Your task to perform on an android device: Search for the best rated TV on Target Image 0: 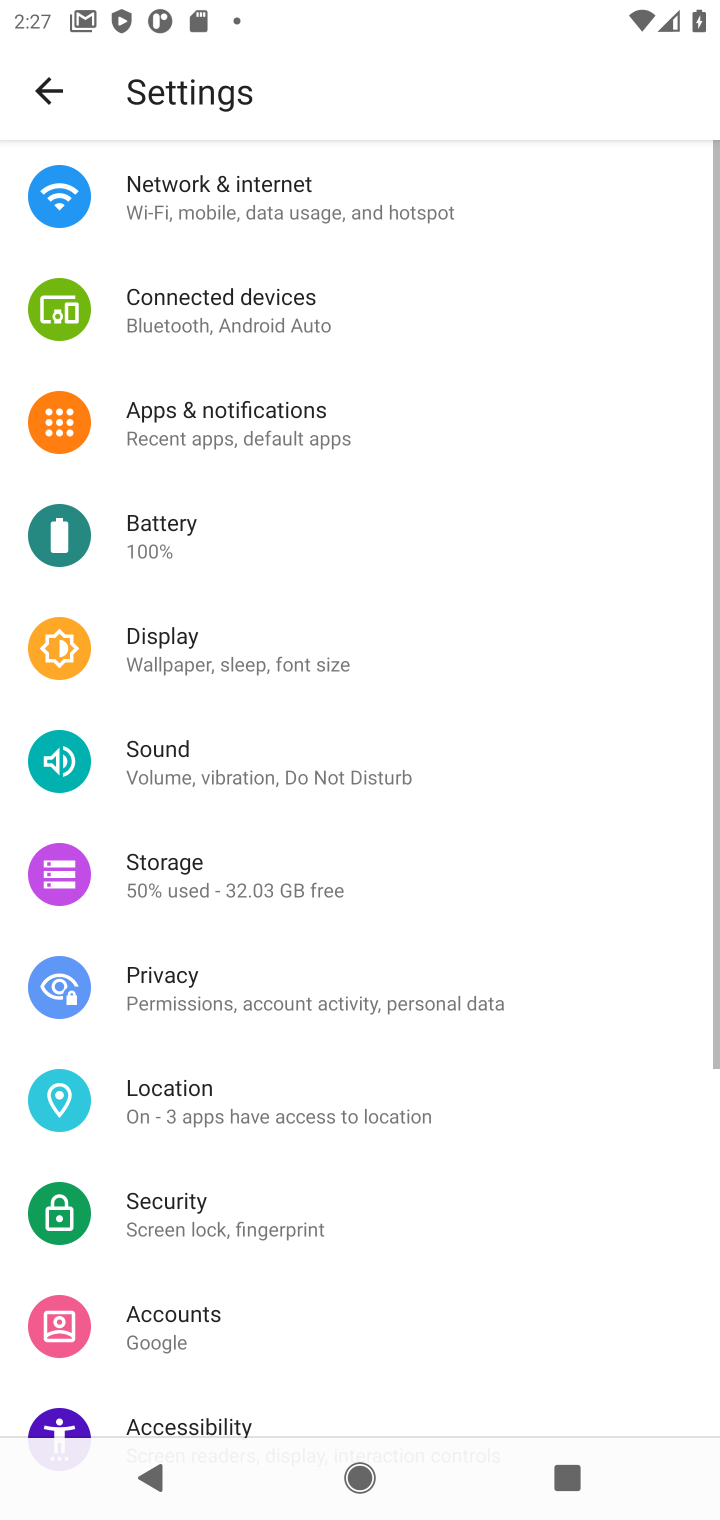
Step 0: click (709, 647)
Your task to perform on an android device: Search for the best rated TV on Target Image 1: 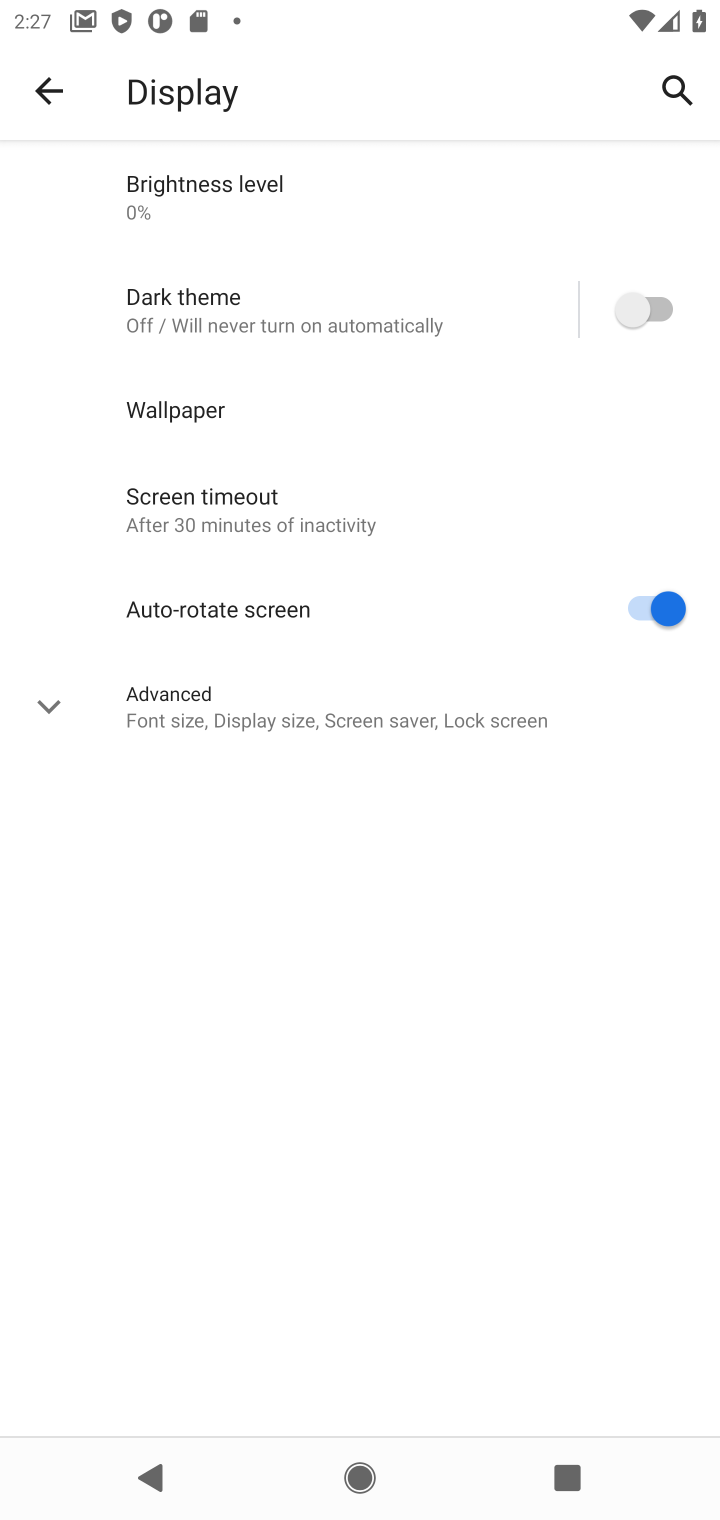
Step 1: press home button
Your task to perform on an android device: Search for the best rated TV on Target Image 2: 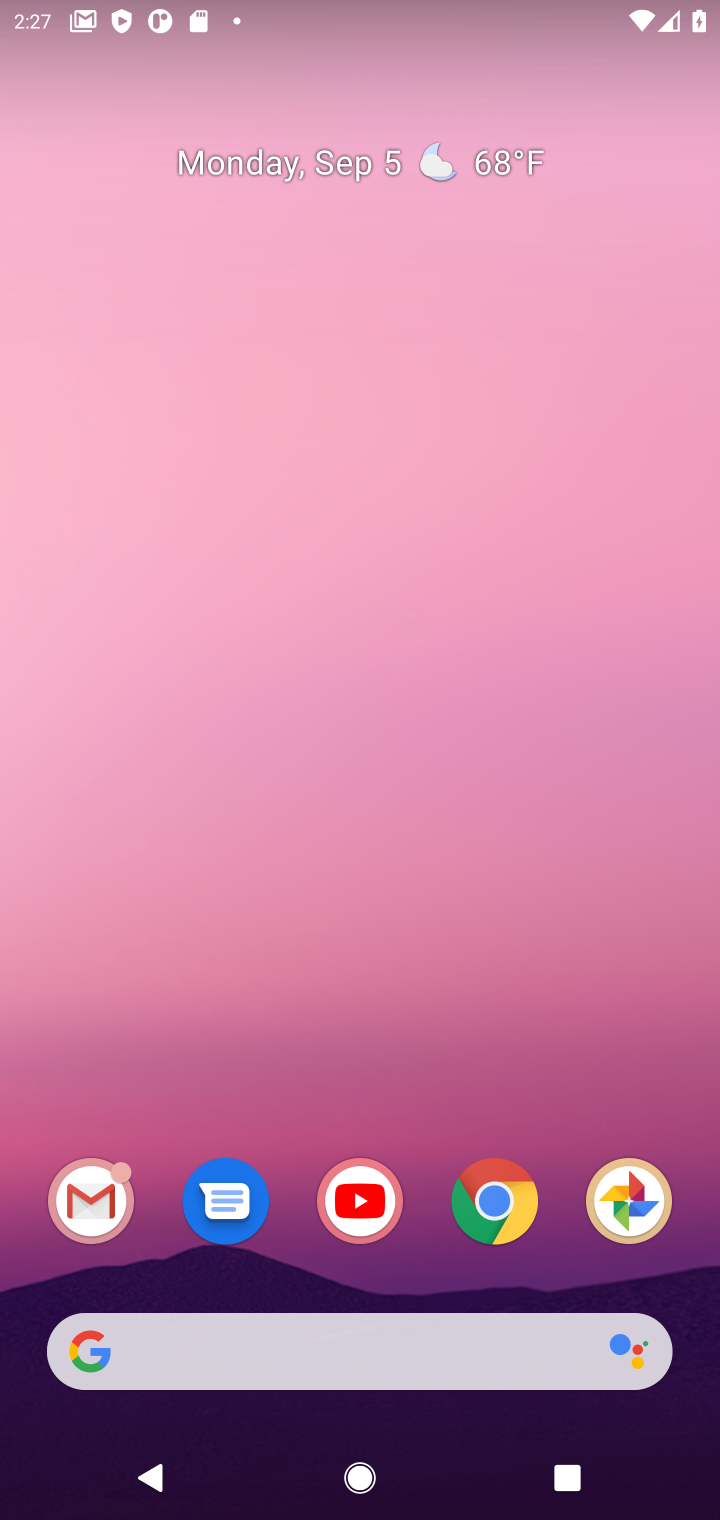
Step 2: click (504, 1186)
Your task to perform on an android device: Search for the best rated TV on Target Image 3: 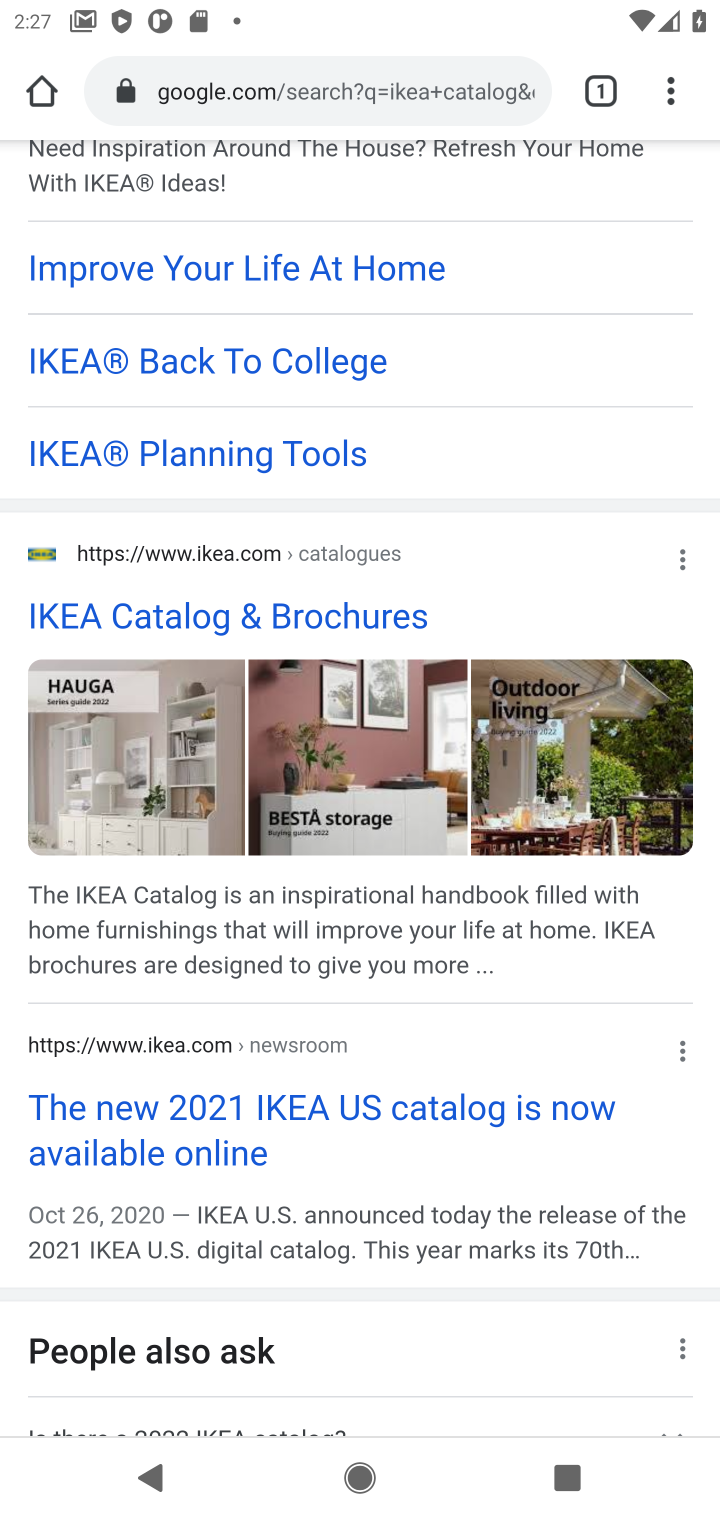
Step 3: click (421, 75)
Your task to perform on an android device: Search for the best rated TV on Target Image 4: 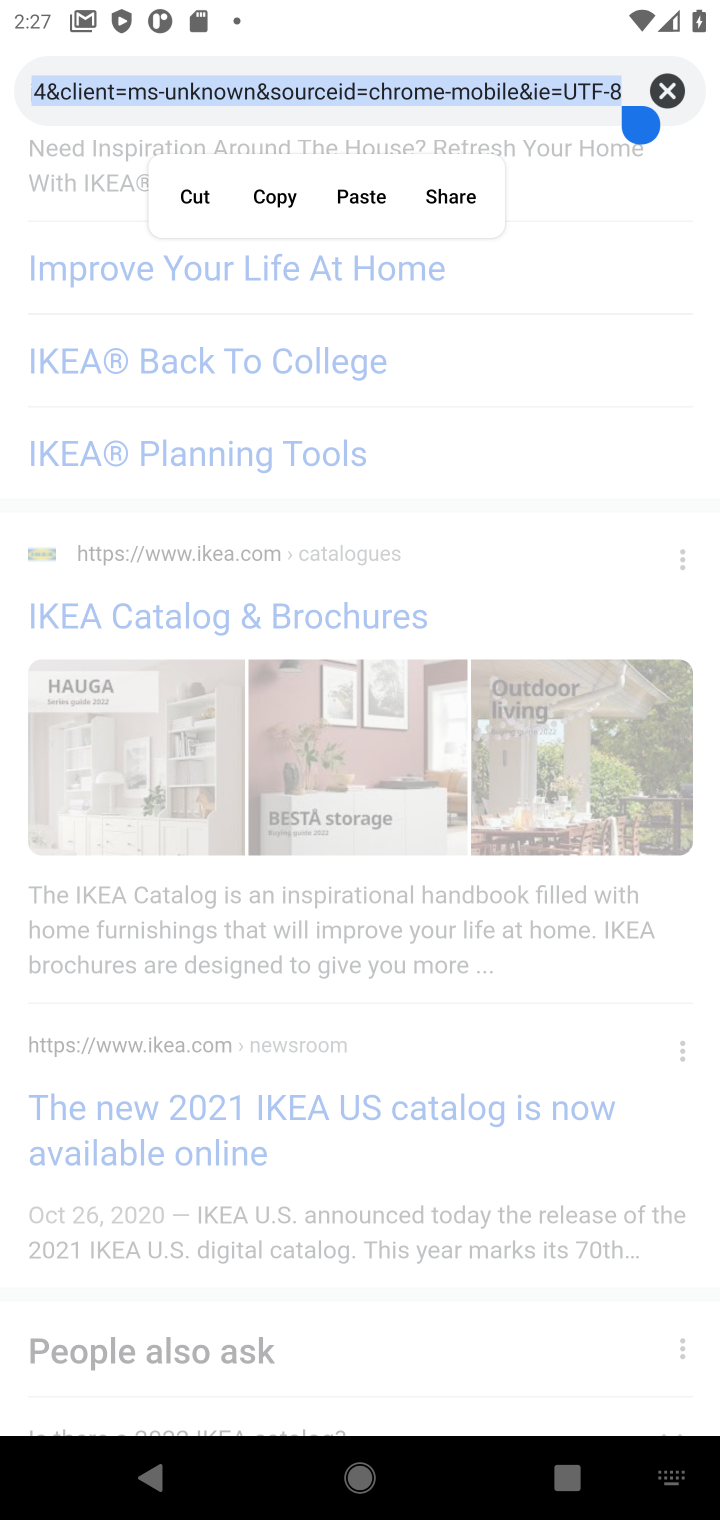
Step 4: click (662, 86)
Your task to perform on an android device: Search for the best rated TV on Target Image 5: 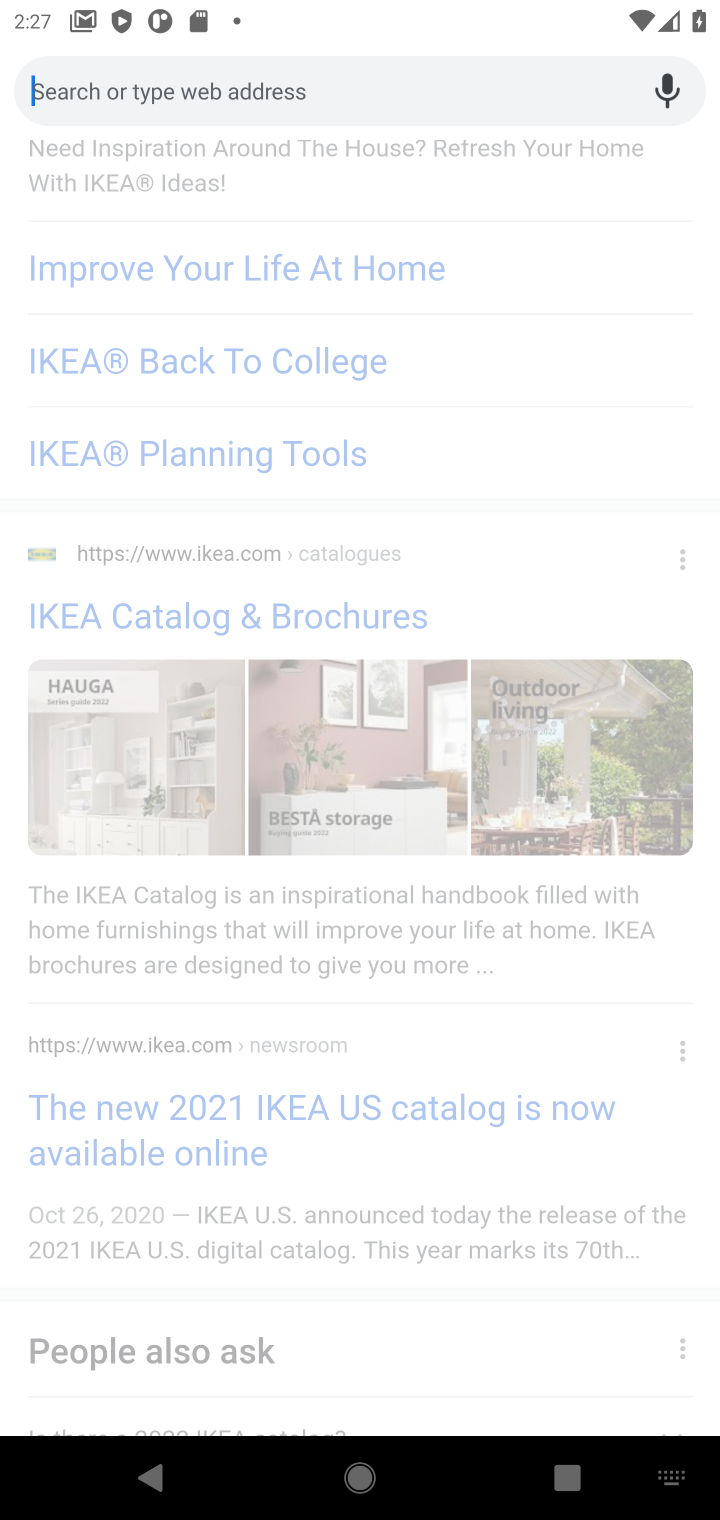
Step 5: type "Target"
Your task to perform on an android device: Search for the best rated TV on Target Image 6: 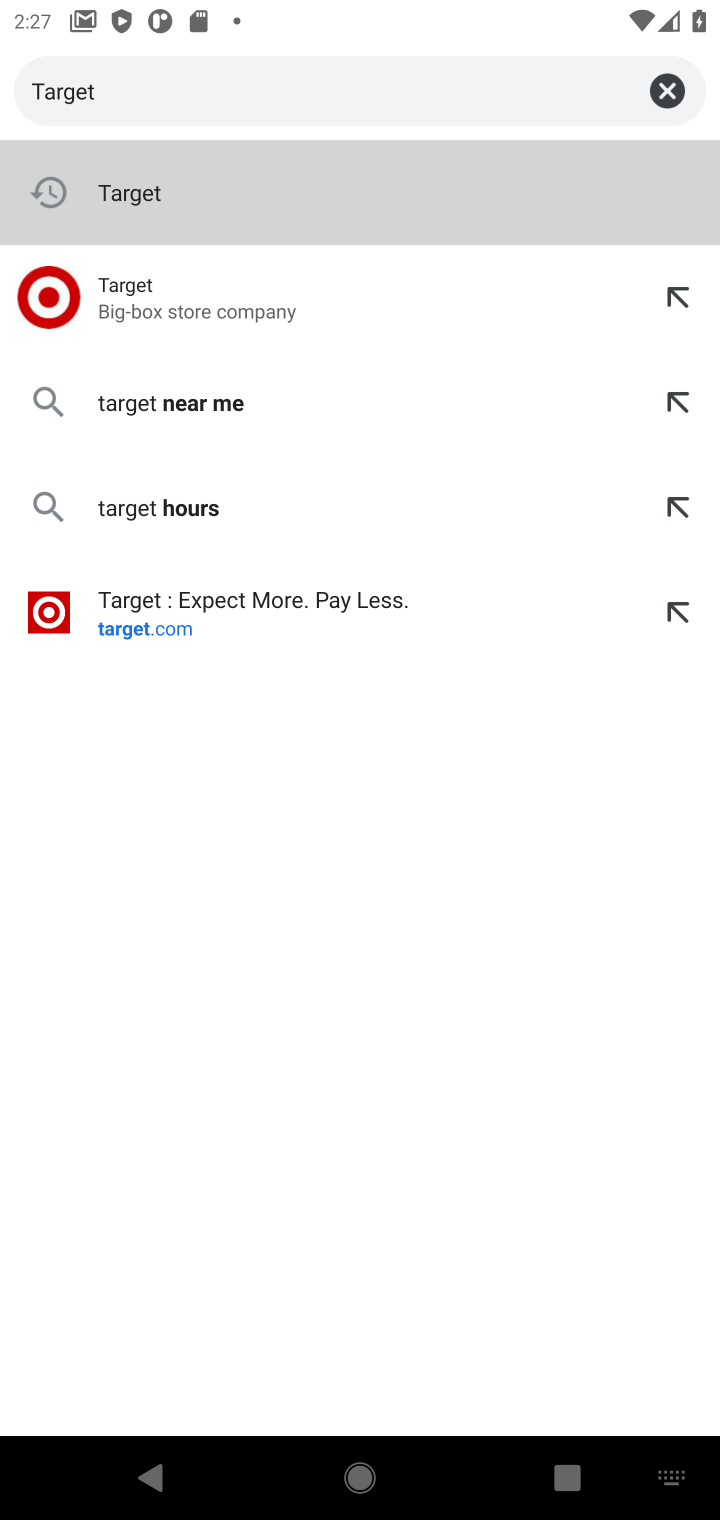
Step 6: press enter
Your task to perform on an android device: Search for the best rated TV on Target Image 7: 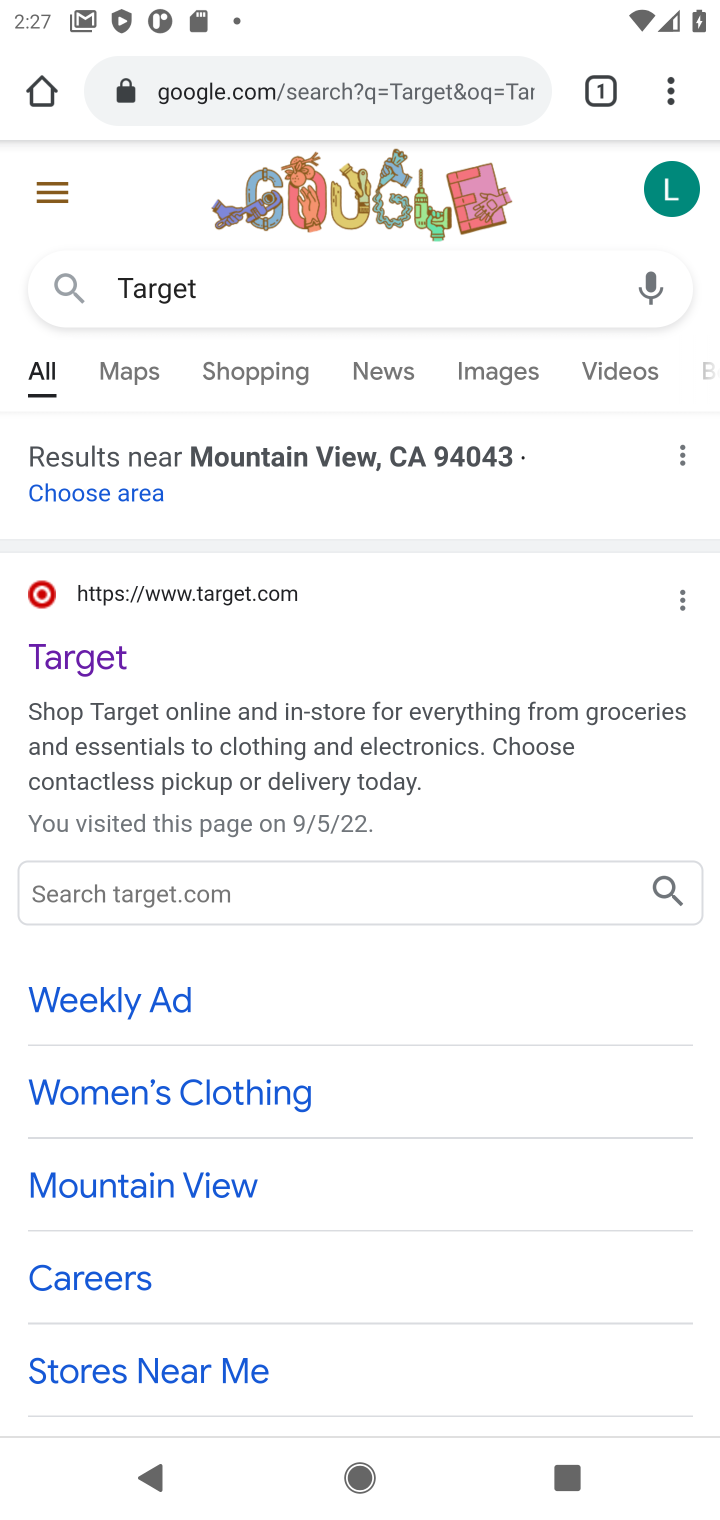
Step 7: click (74, 665)
Your task to perform on an android device: Search for the best rated TV on Target Image 8: 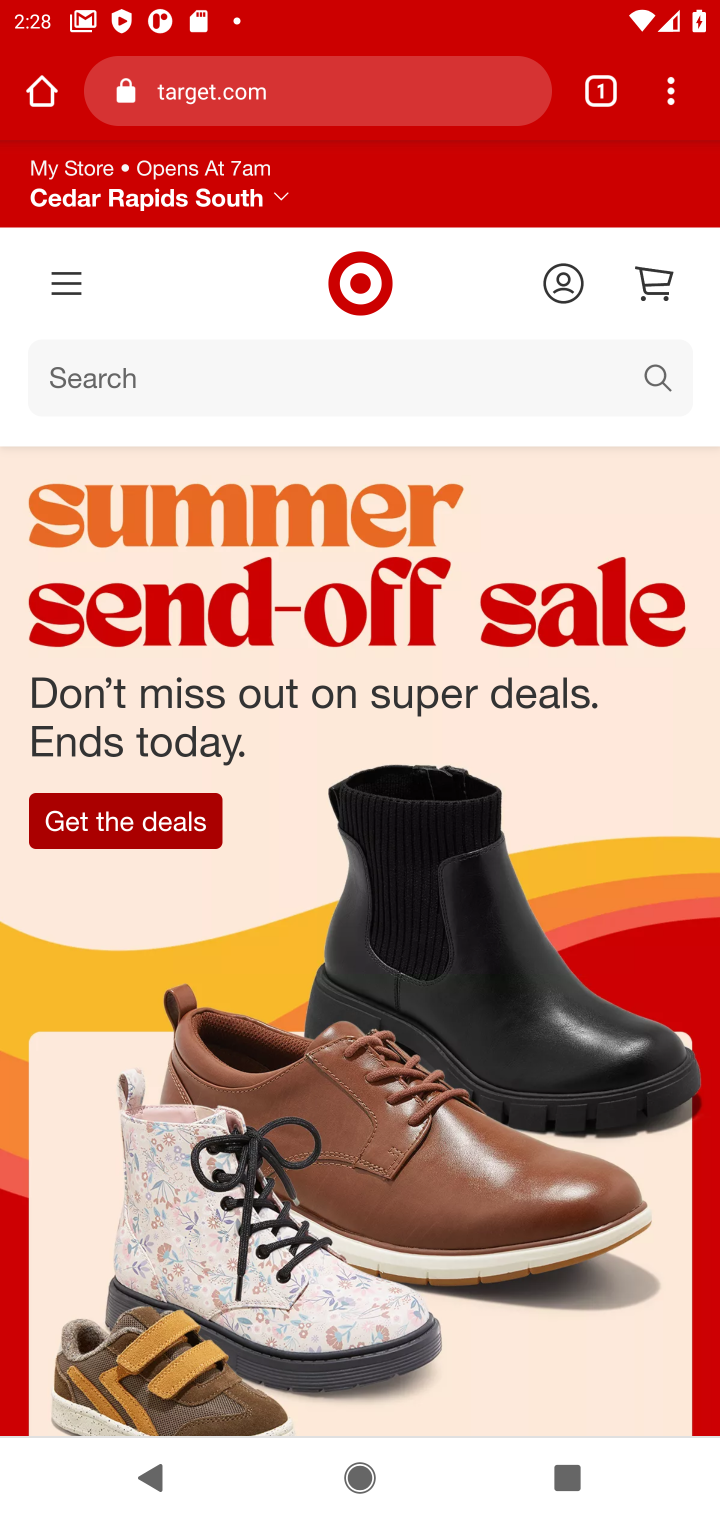
Step 8: click (85, 364)
Your task to perform on an android device: Search for the best rated TV on Target Image 9: 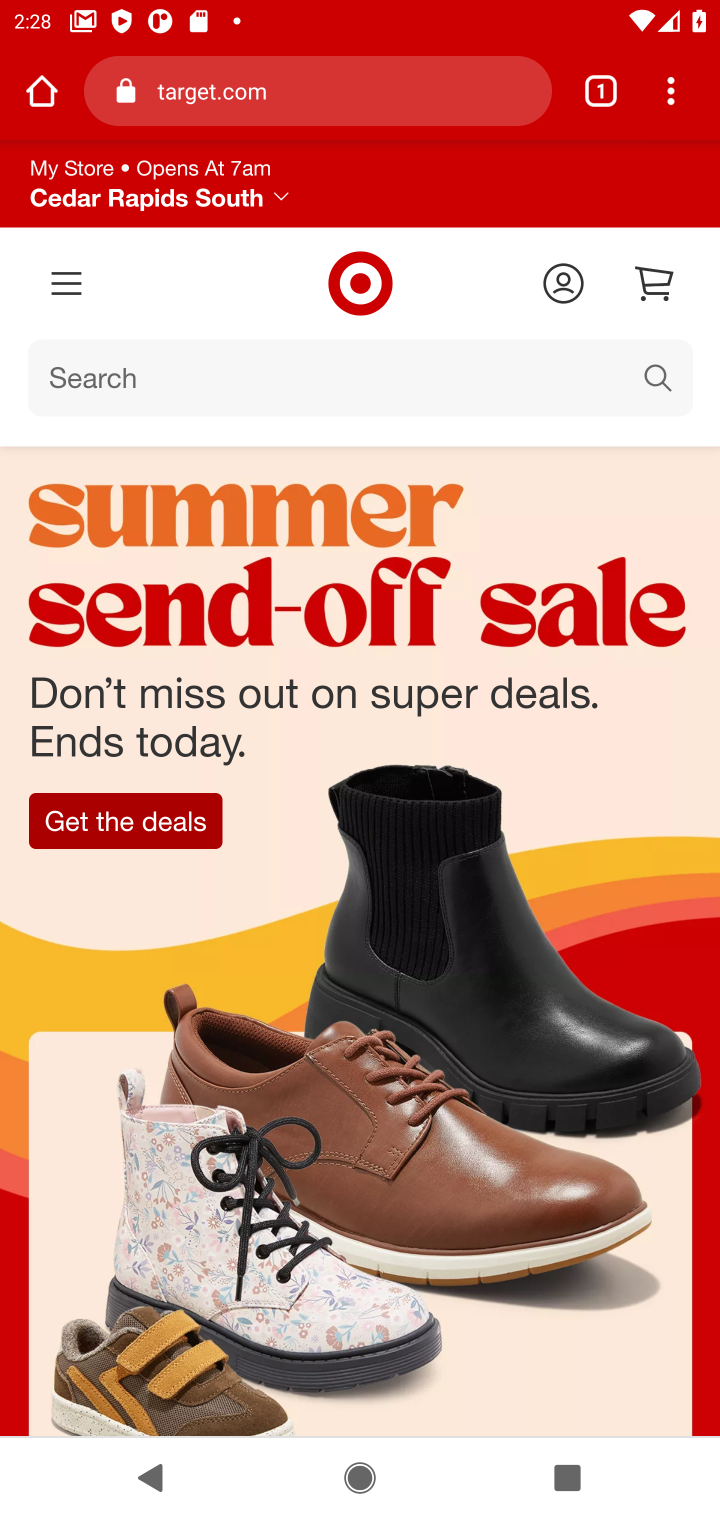
Step 9: click (78, 405)
Your task to perform on an android device: Search for the best rated TV on Target Image 10: 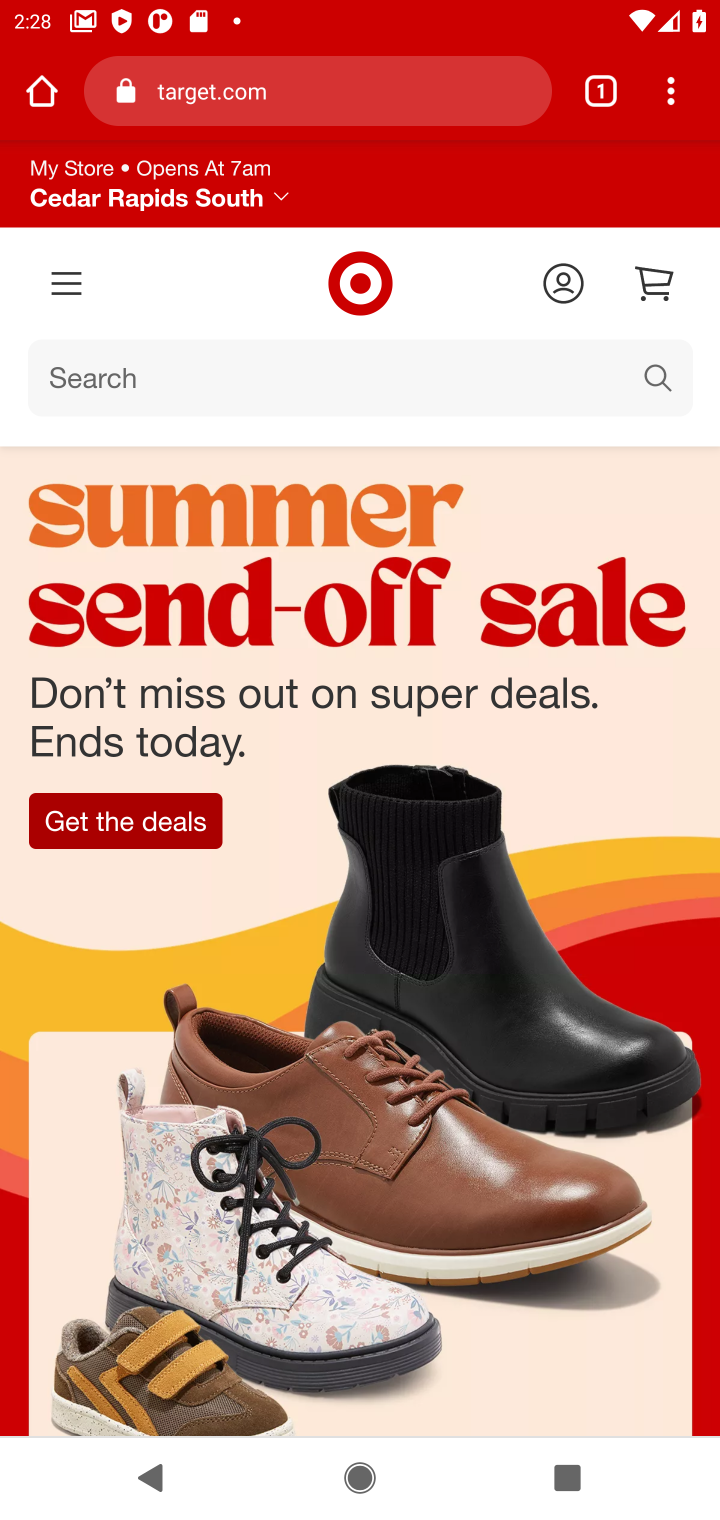
Step 10: click (95, 378)
Your task to perform on an android device: Search for the best rated TV on Target Image 11: 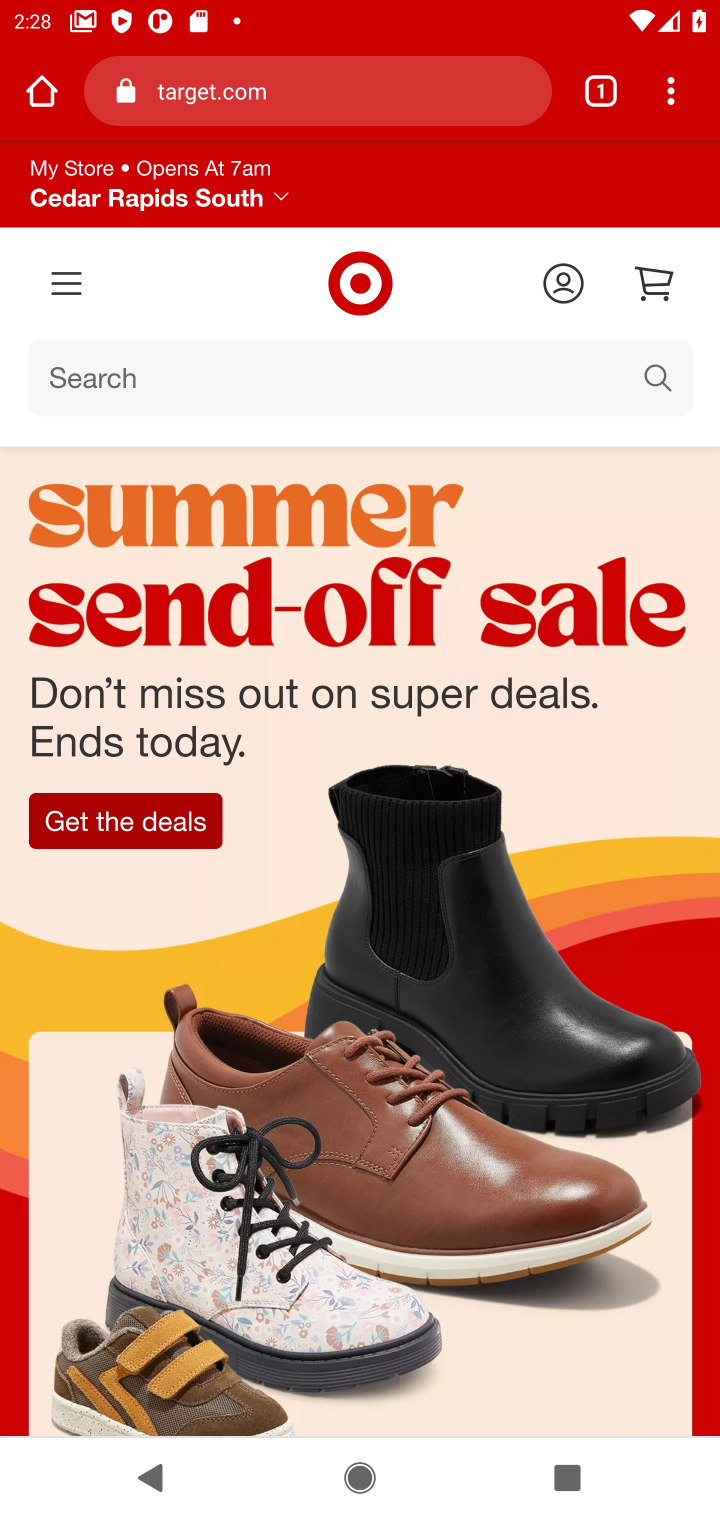
Step 11: click (161, 376)
Your task to perform on an android device: Search for the best rated TV on Target Image 12: 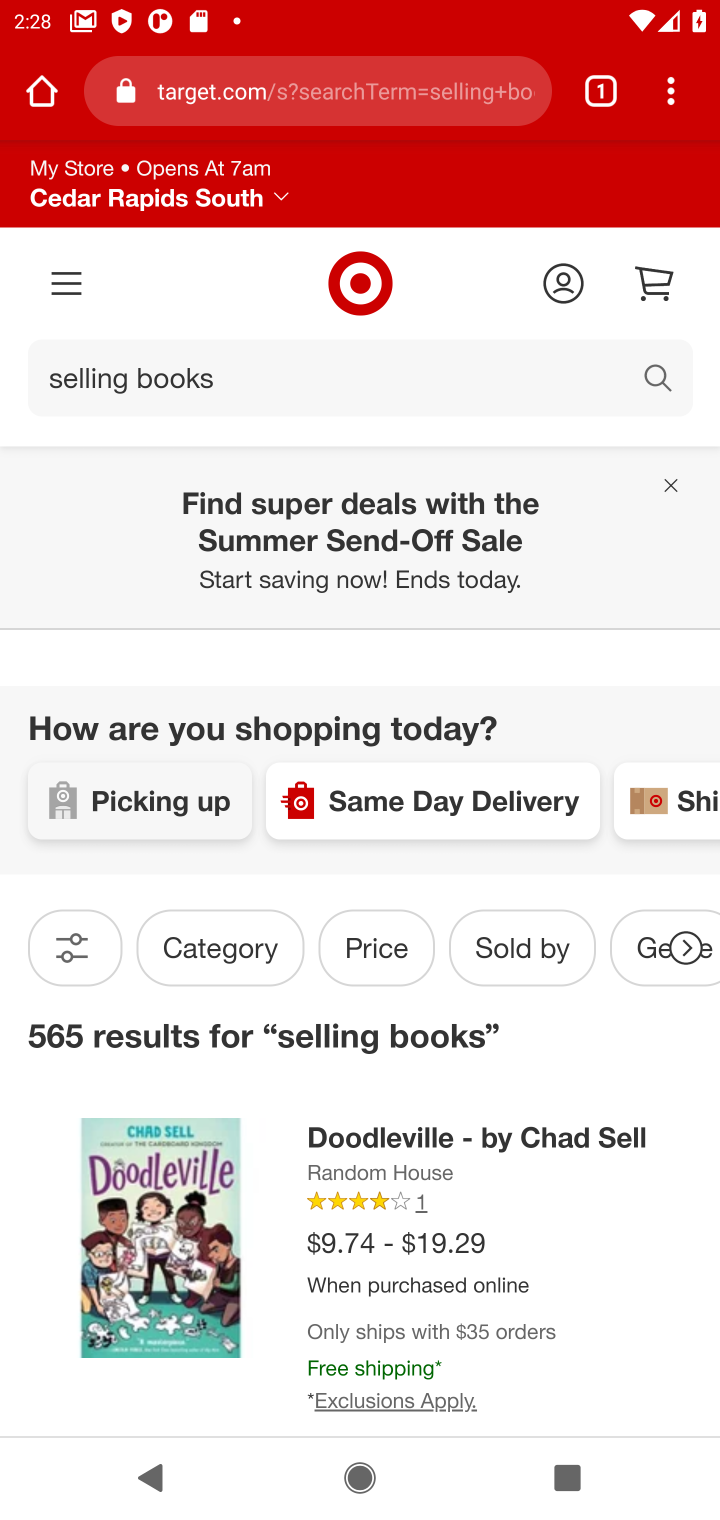
Step 12: click (661, 366)
Your task to perform on an android device: Search for the best rated TV on Target Image 13: 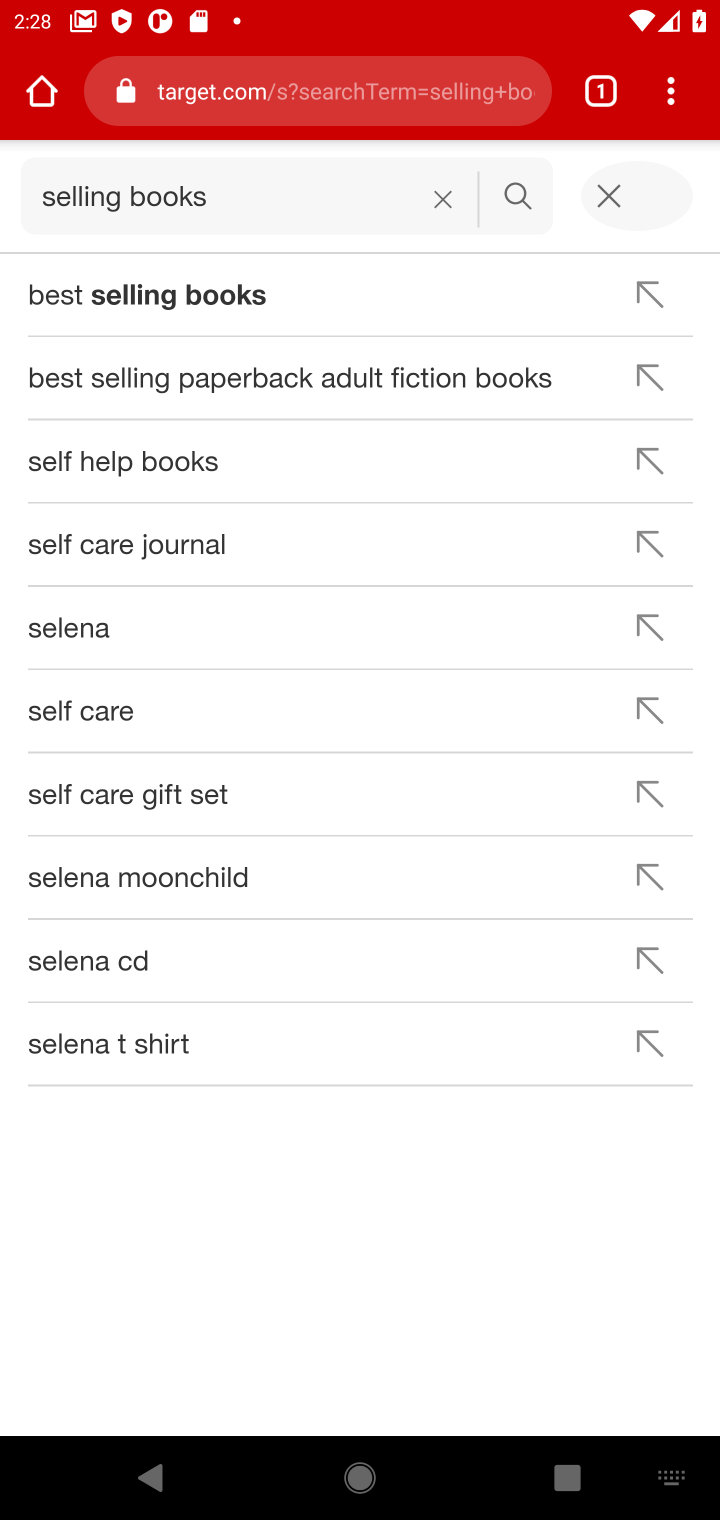
Step 13: click (444, 187)
Your task to perform on an android device: Search for the best rated TV on Target Image 14: 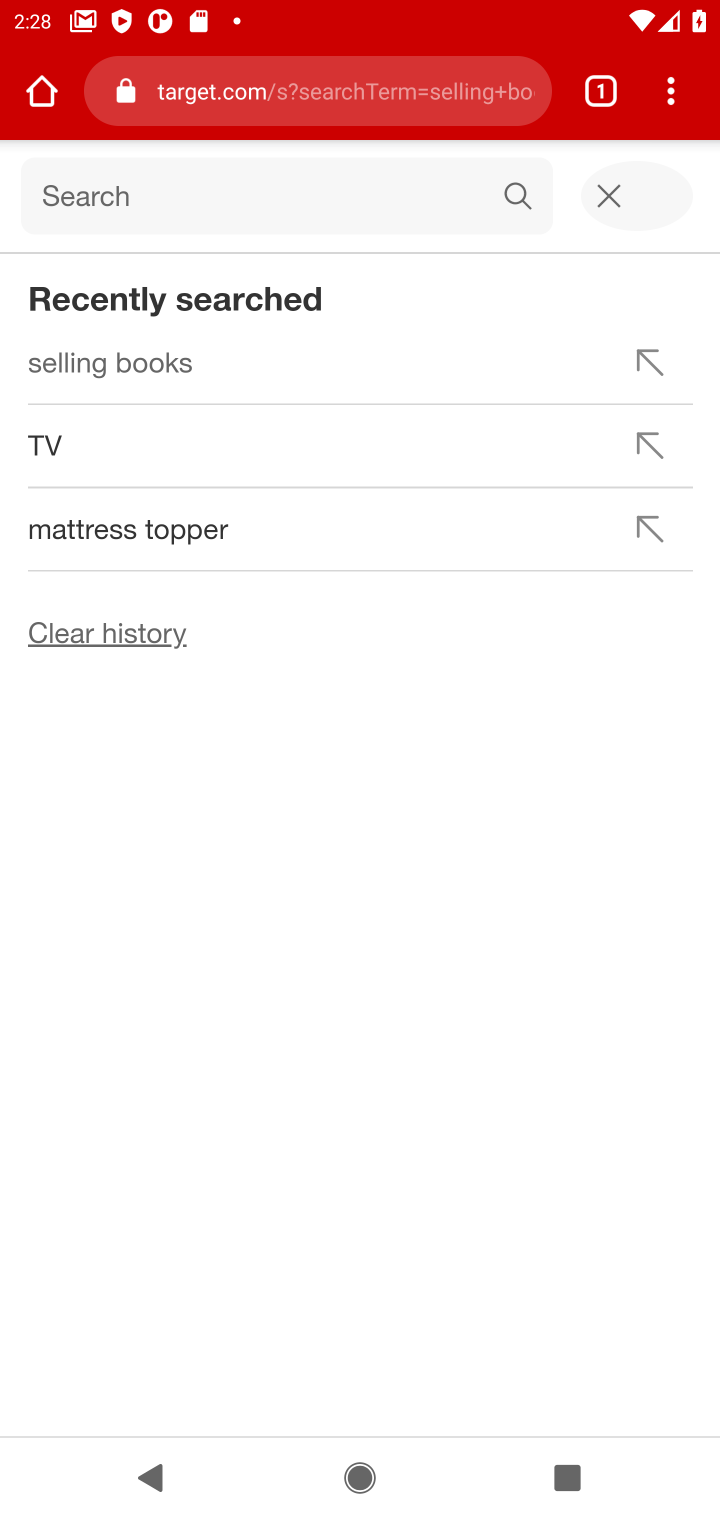
Step 14: click (102, 219)
Your task to perform on an android device: Search for the best rated TV on Target Image 15: 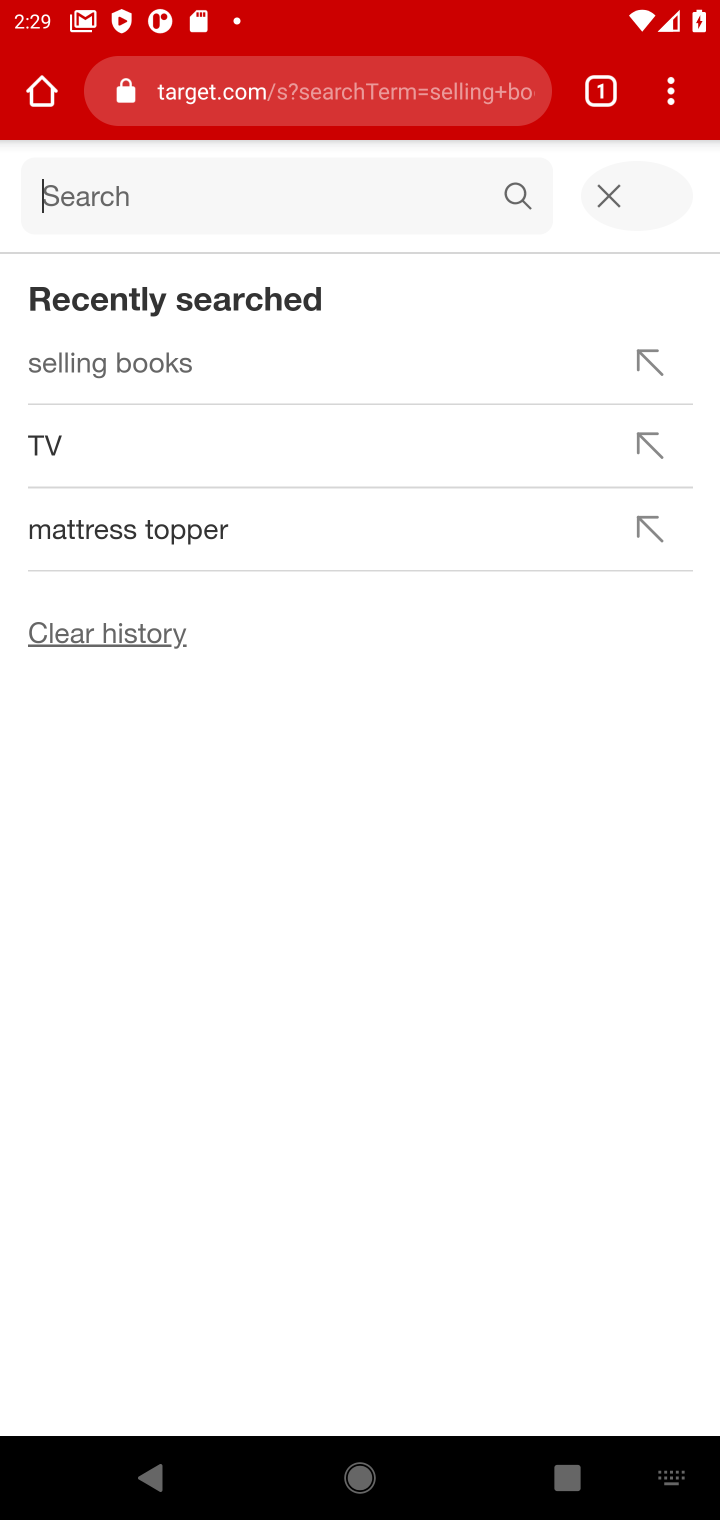
Step 15: type " TV "
Your task to perform on an android device: Search for the best rated TV on Target Image 16: 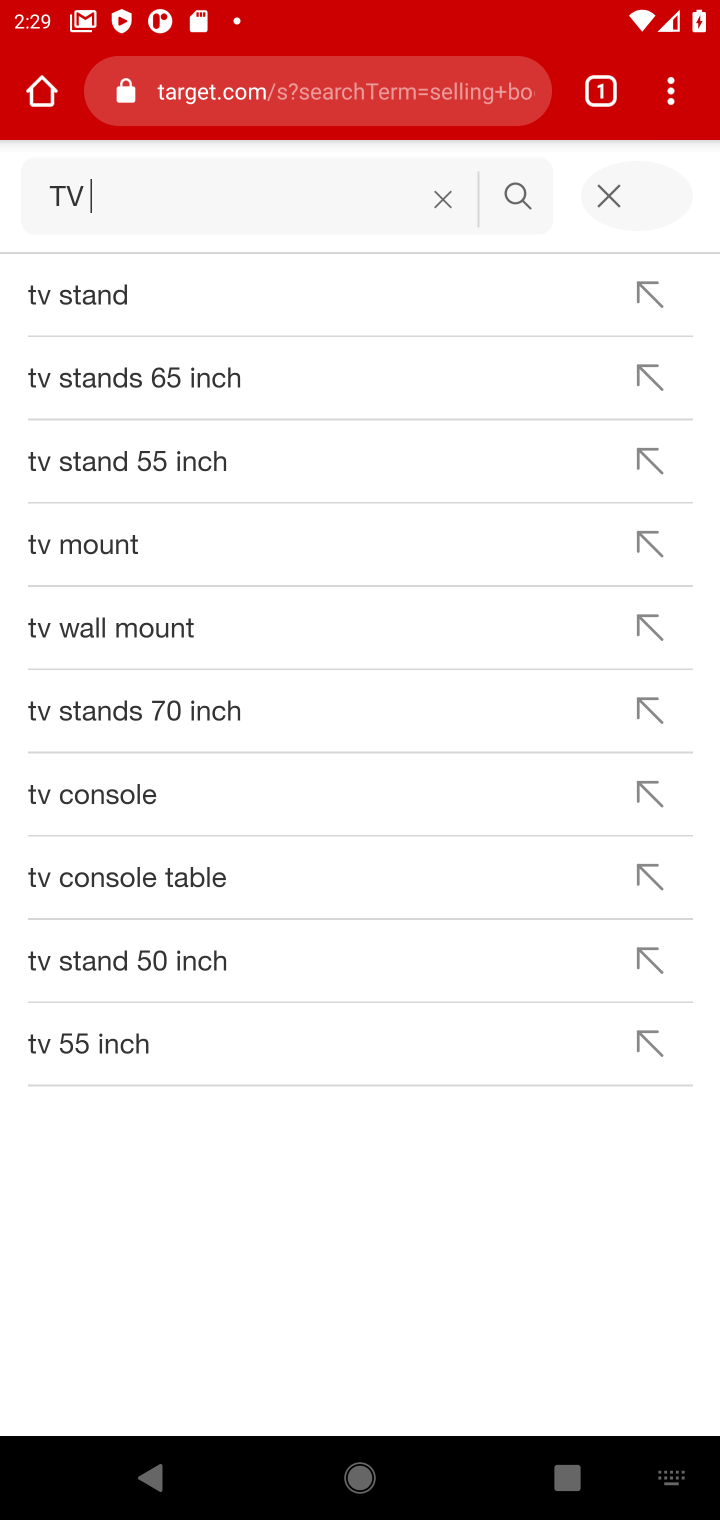
Step 16: press enter
Your task to perform on an android device: Search for the best rated TV on Target Image 17: 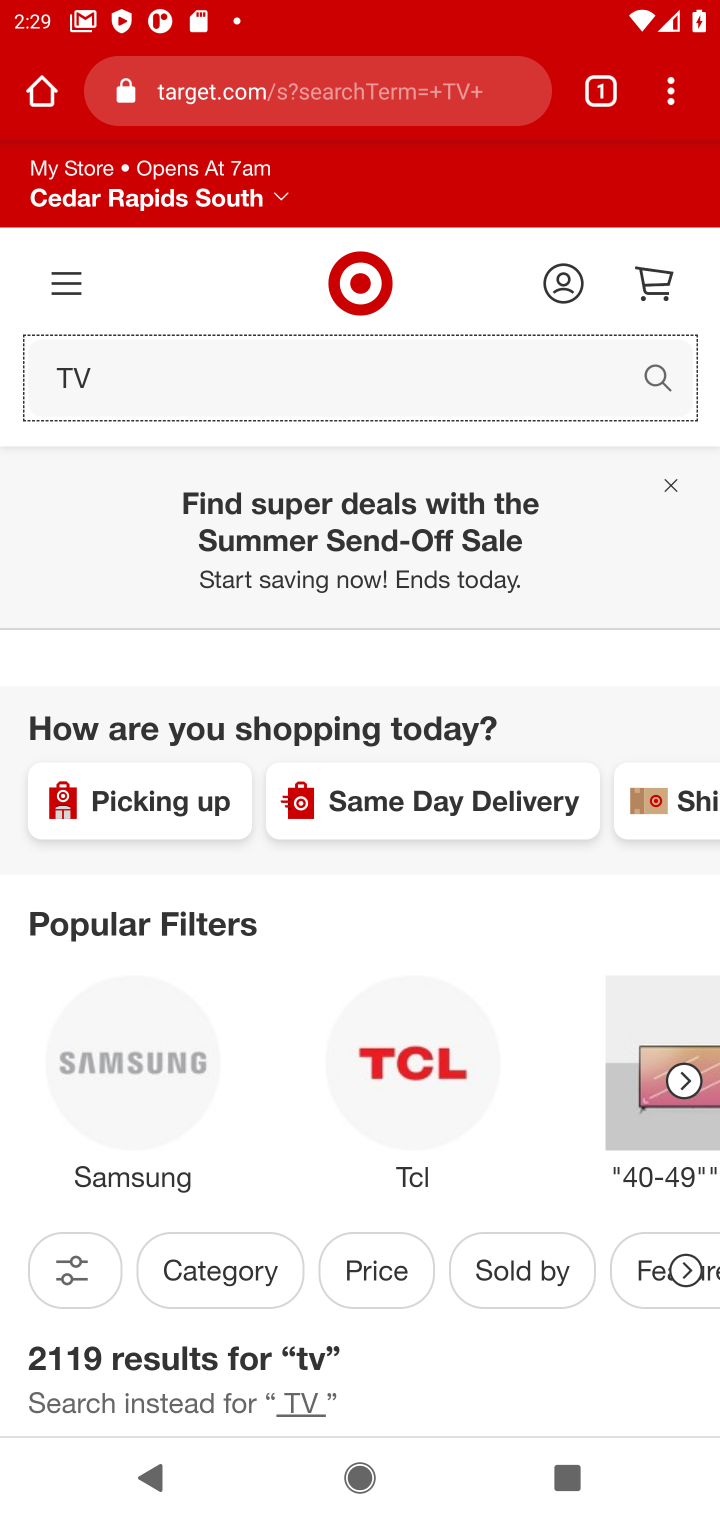
Step 17: click (662, 380)
Your task to perform on an android device: Search for the best rated TV on Target Image 18: 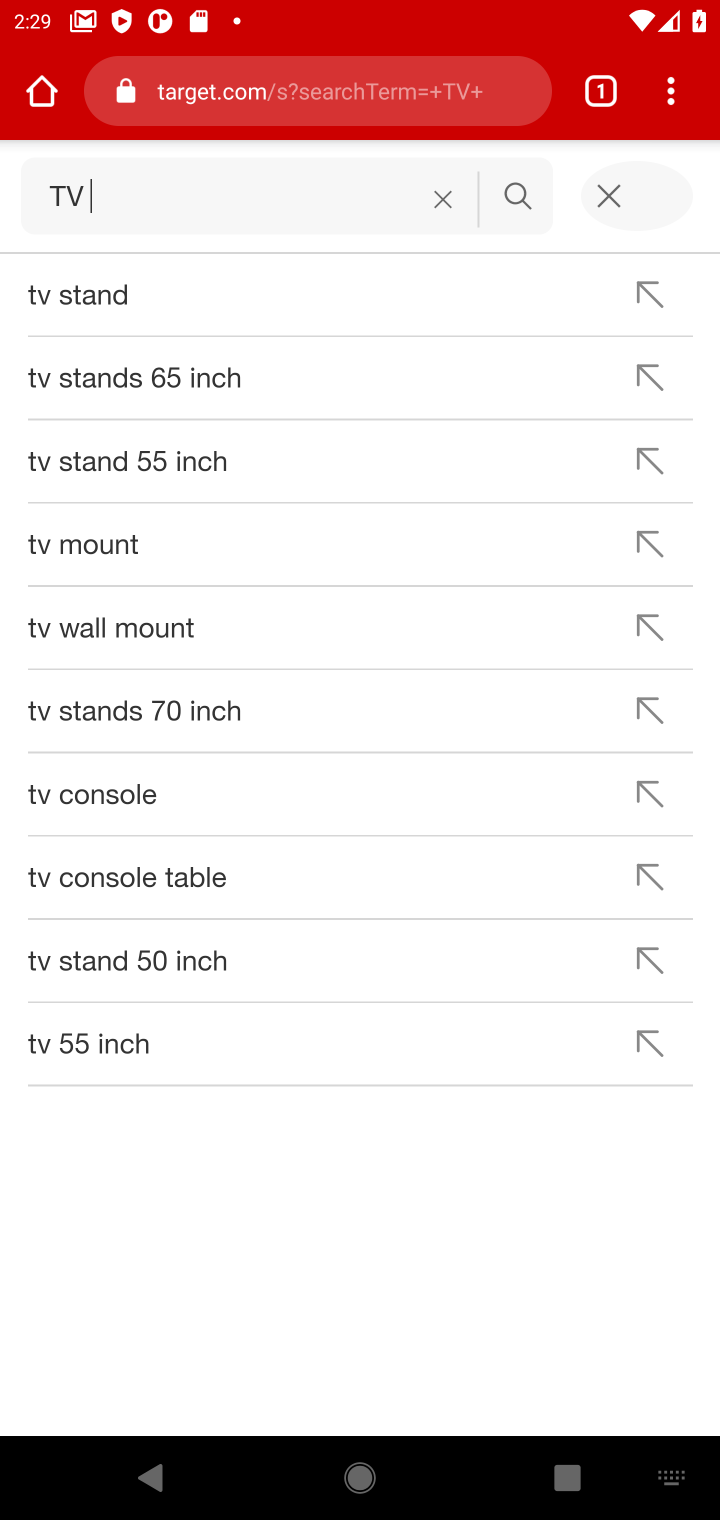
Step 18: click (519, 200)
Your task to perform on an android device: Search for the best rated TV on Target Image 19: 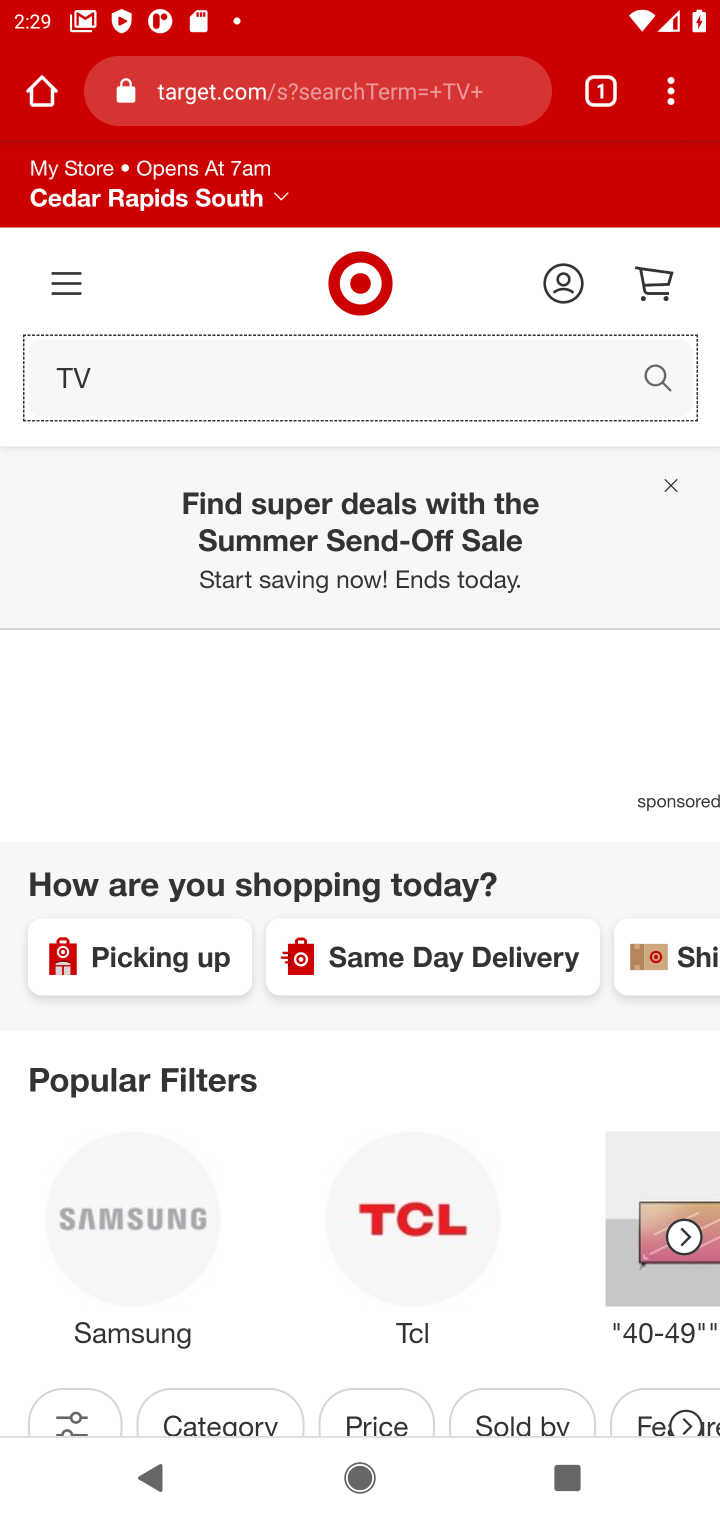
Step 19: task complete